Your task to perform on an android device: Turn on the flashlight Image 0: 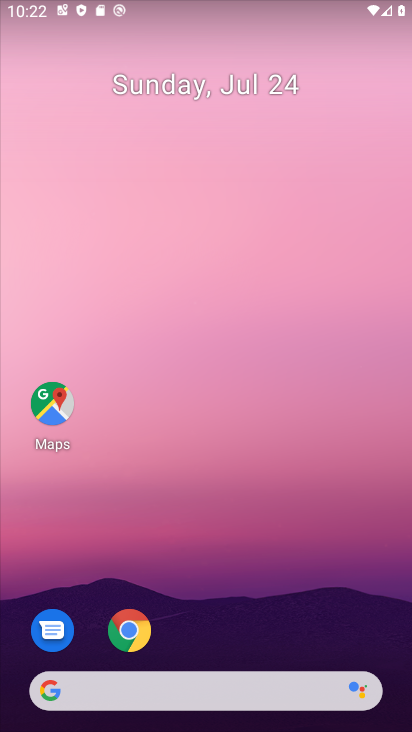
Step 0: drag from (215, 408) to (218, 92)
Your task to perform on an android device: Turn on the flashlight Image 1: 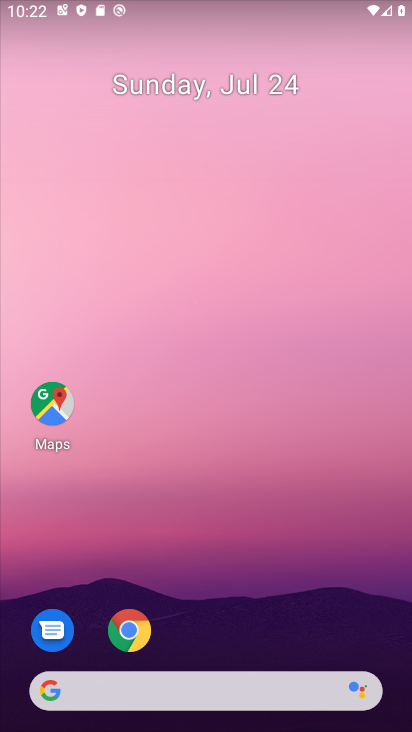
Step 1: drag from (219, 645) to (259, 115)
Your task to perform on an android device: Turn on the flashlight Image 2: 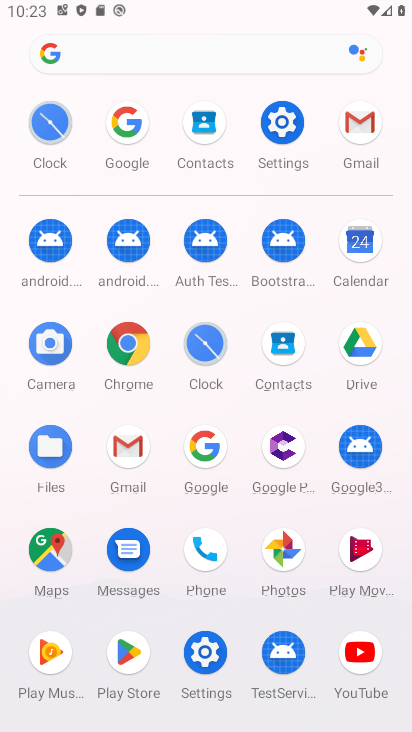
Step 2: click (263, 142)
Your task to perform on an android device: Turn on the flashlight Image 3: 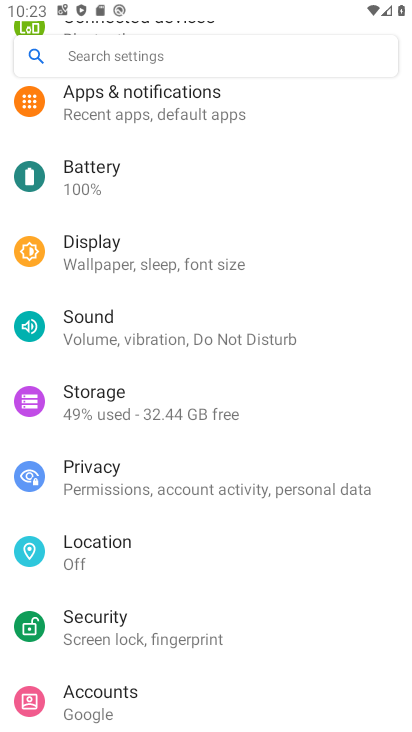
Step 3: task complete